Your task to perform on an android device: turn on javascript in the chrome app Image 0: 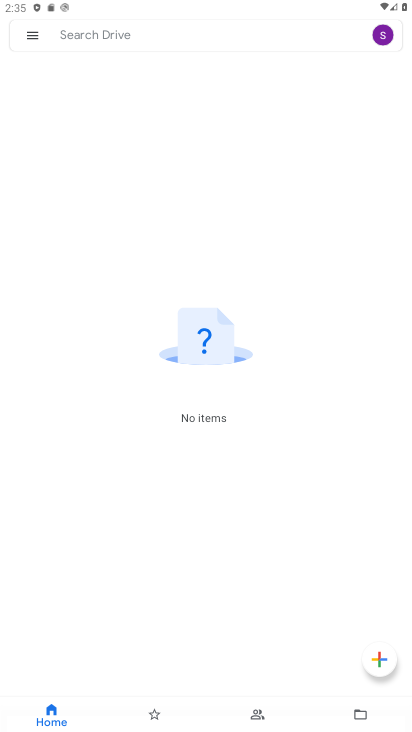
Step 0: task complete